Your task to perform on an android device: Open settings on Google Maps Image 0: 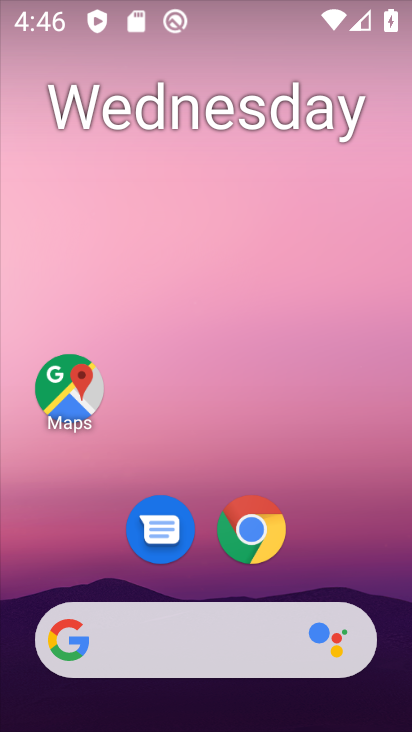
Step 0: click (76, 388)
Your task to perform on an android device: Open settings on Google Maps Image 1: 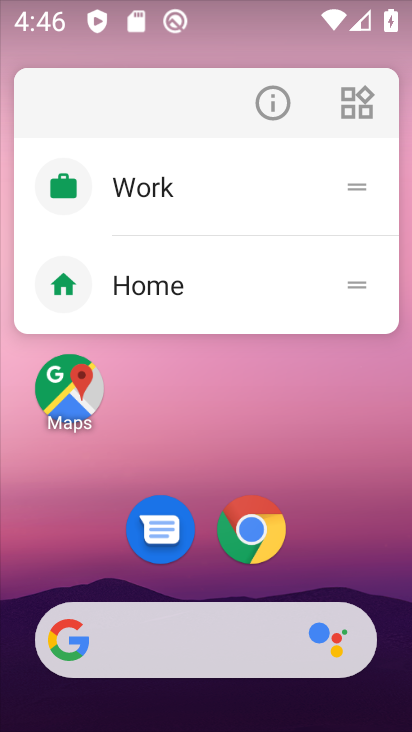
Step 1: click (78, 399)
Your task to perform on an android device: Open settings on Google Maps Image 2: 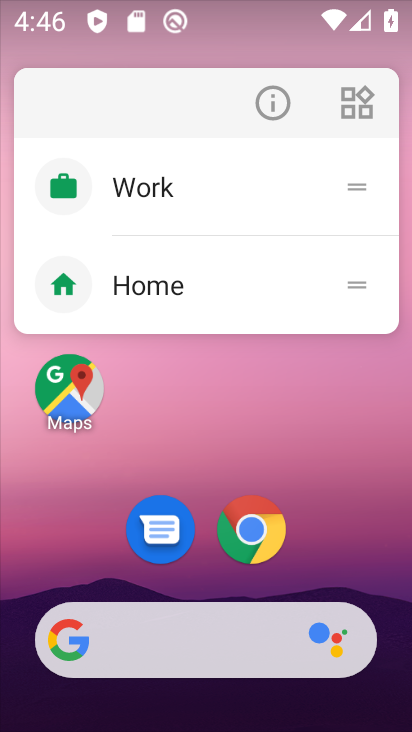
Step 2: click (68, 407)
Your task to perform on an android device: Open settings on Google Maps Image 3: 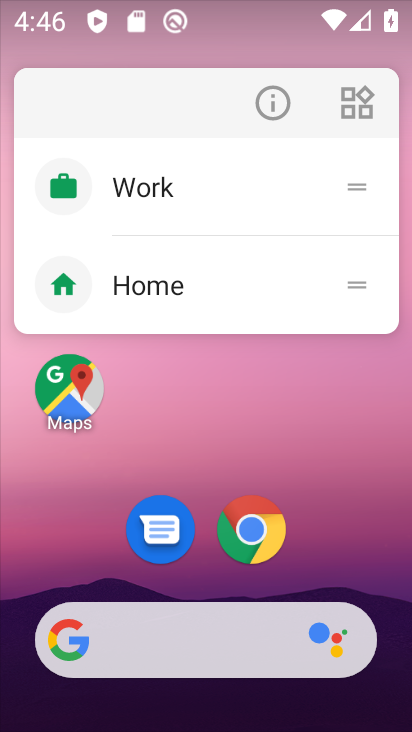
Step 3: click (91, 408)
Your task to perform on an android device: Open settings on Google Maps Image 4: 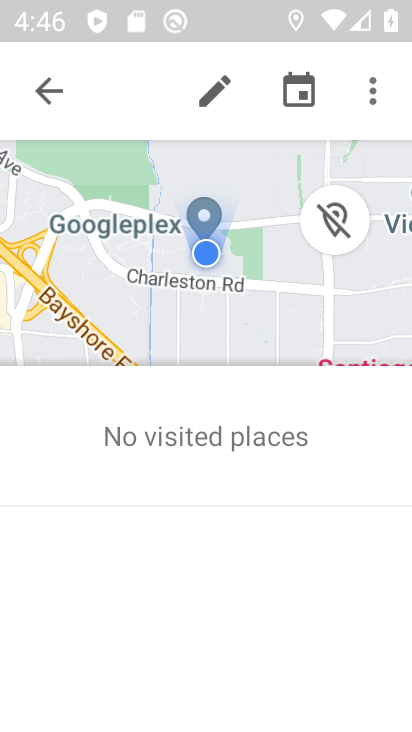
Step 4: click (65, 101)
Your task to perform on an android device: Open settings on Google Maps Image 5: 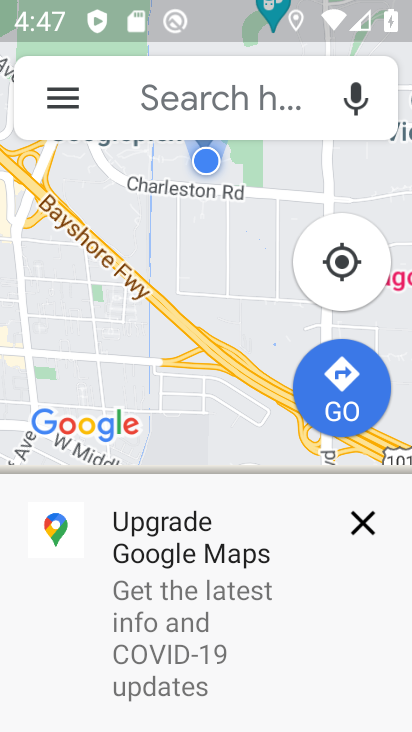
Step 5: click (65, 101)
Your task to perform on an android device: Open settings on Google Maps Image 6: 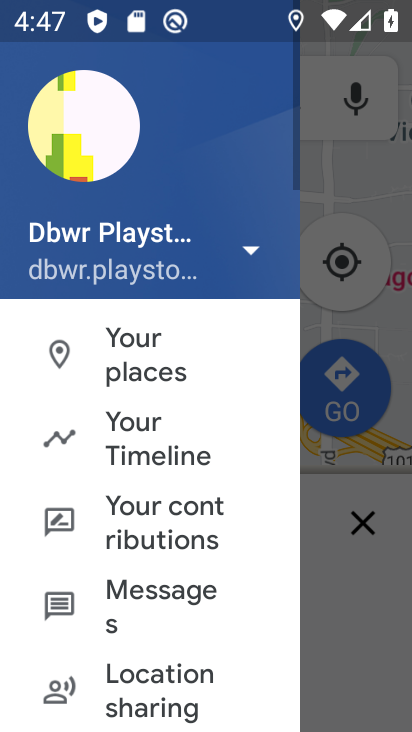
Step 6: drag from (73, 639) to (186, 233)
Your task to perform on an android device: Open settings on Google Maps Image 7: 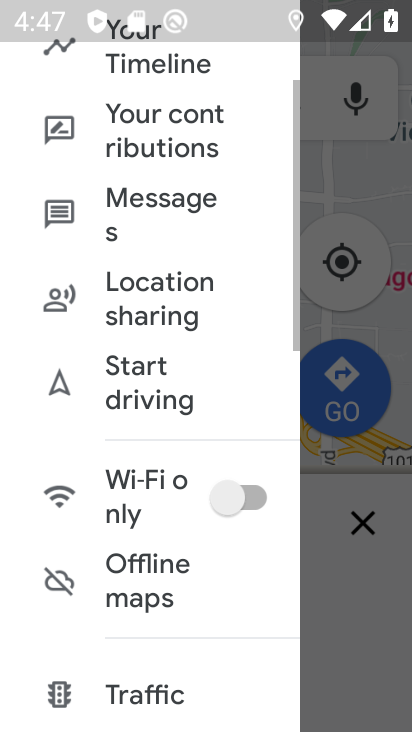
Step 7: drag from (145, 625) to (234, 231)
Your task to perform on an android device: Open settings on Google Maps Image 8: 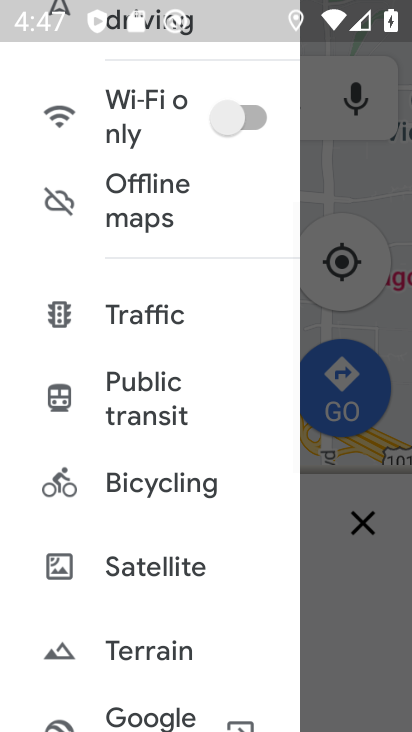
Step 8: drag from (142, 654) to (229, 190)
Your task to perform on an android device: Open settings on Google Maps Image 9: 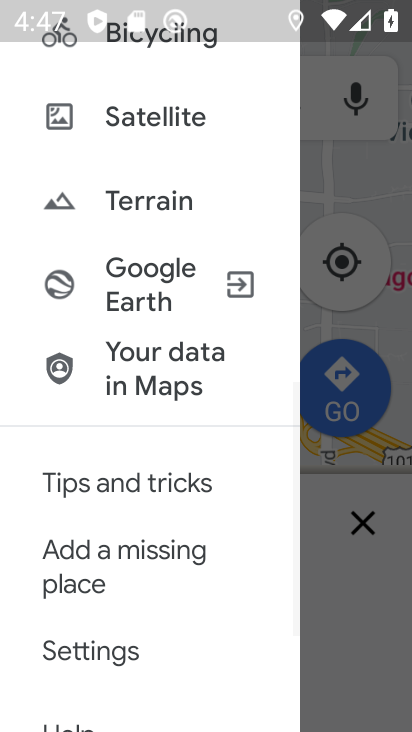
Step 9: drag from (170, 626) to (212, 388)
Your task to perform on an android device: Open settings on Google Maps Image 10: 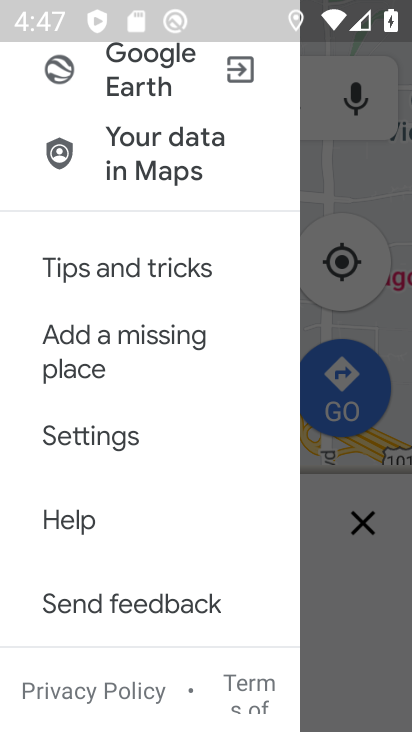
Step 10: click (135, 438)
Your task to perform on an android device: Open settings on Google Maps Image 11: 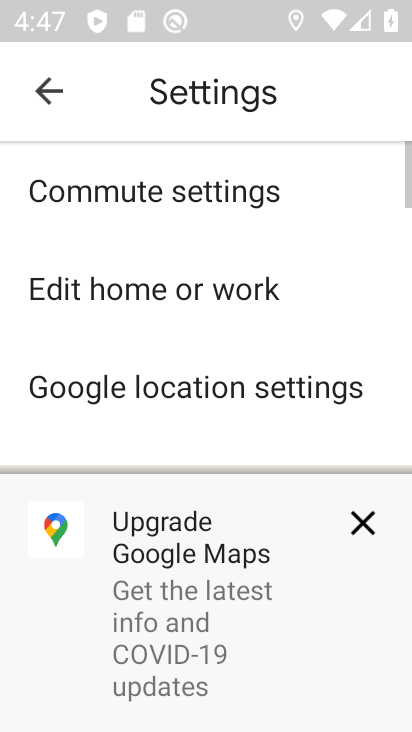
Step 11: click (357, 525)
Your task to perform on an android device: Open settings on Google Maps Image 12: 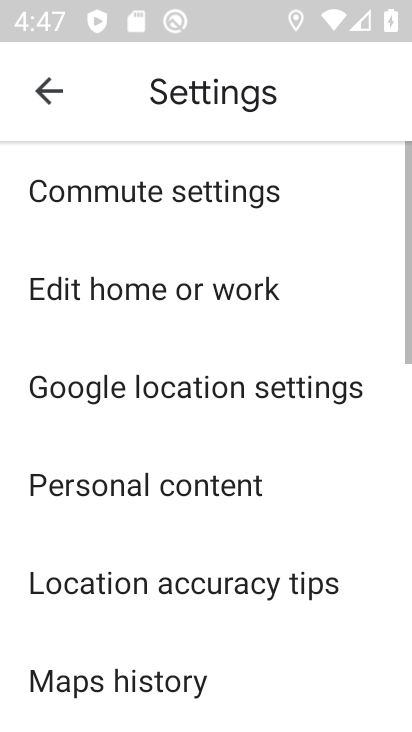
Step 12: task complete